Your task to perform on an android device: turn on showing notifications on the lock screen Image 0: 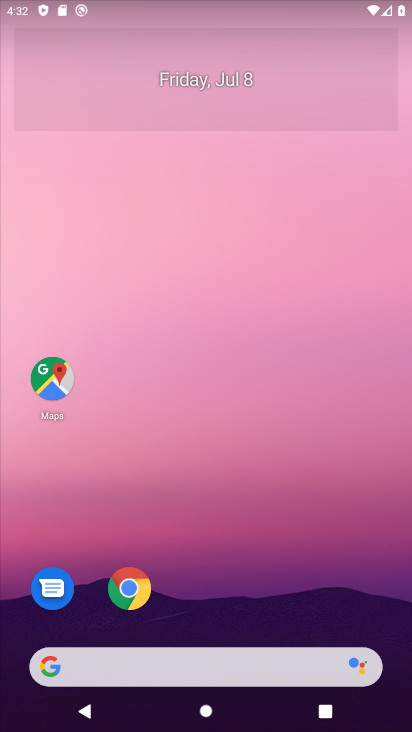
Step 0: drag from (239, 425) to (268, 223)
Your task to perform on an android device: turn on showing notifications on the lock screen Image 1: 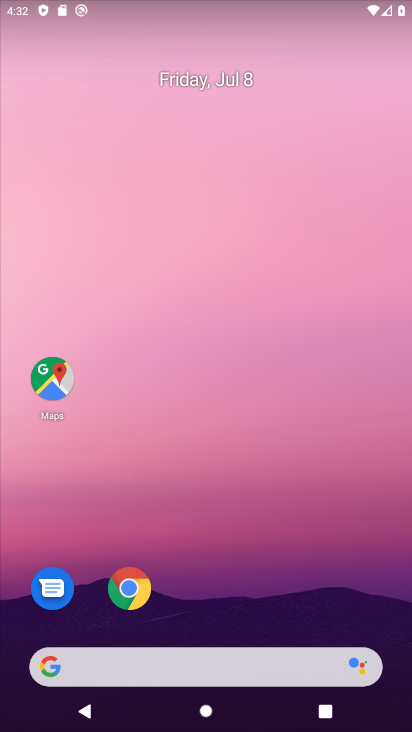
Step 1: drag from (237, 605) to (279, 264)
Your task to perform on an android device: turn on showing notifications on the lock screen Image 2: 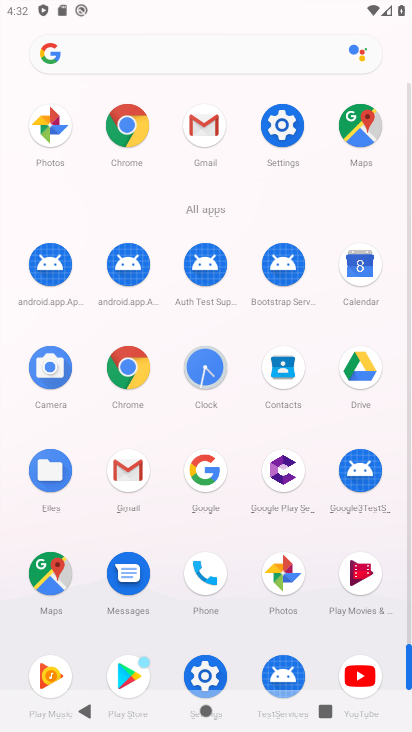
Step 2: click (197, 684)
Your task to perform on an android device: turn on showing notifications on the lock screen Image 3: 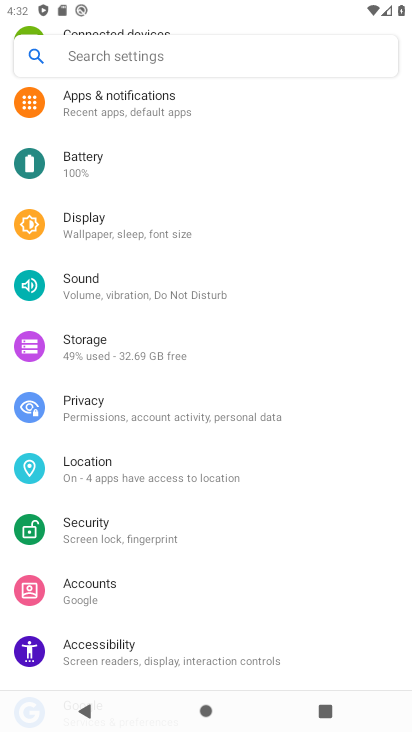
Step 3: click (173, 101)
Your task to perform on an android device: turn on showing notifications on the lock screen Image 4: 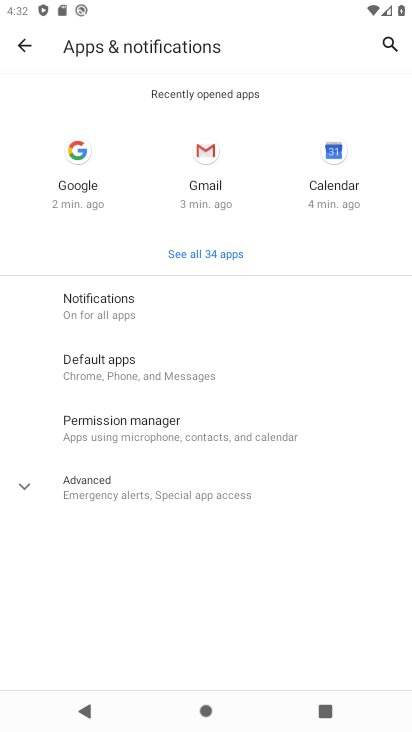
Step 4: task complete